Your task to perform on an android device: Open the web browser Image 0: 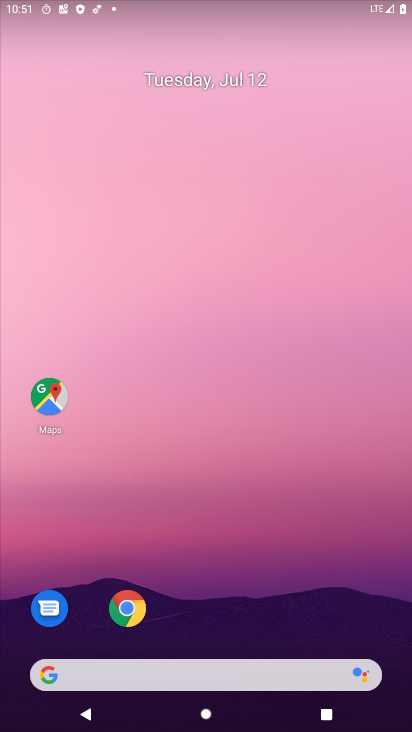
Step 0: click (125, 609)
Your task to perform on an android device: Open the web browser Image 1: 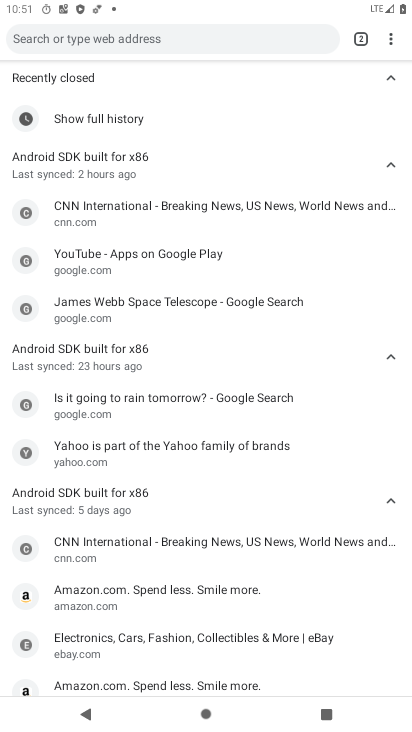
Step 1: task complete